Your task to perform on an android device: Do I have any events this weekend? Image 0: 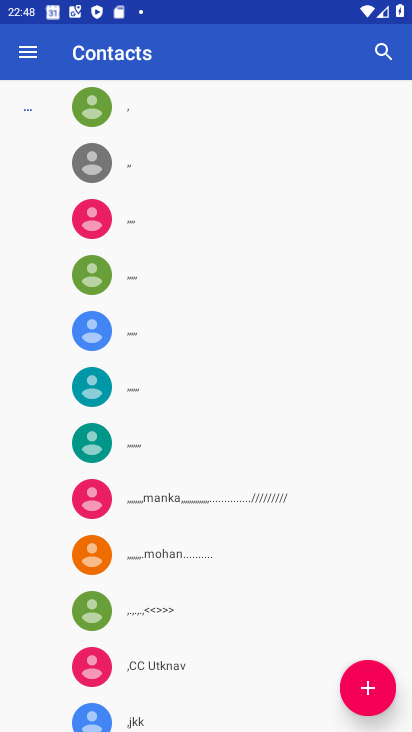
Step 0: press home button
Your task to perform on an android device: Do I have any events this weekend? Image 1: 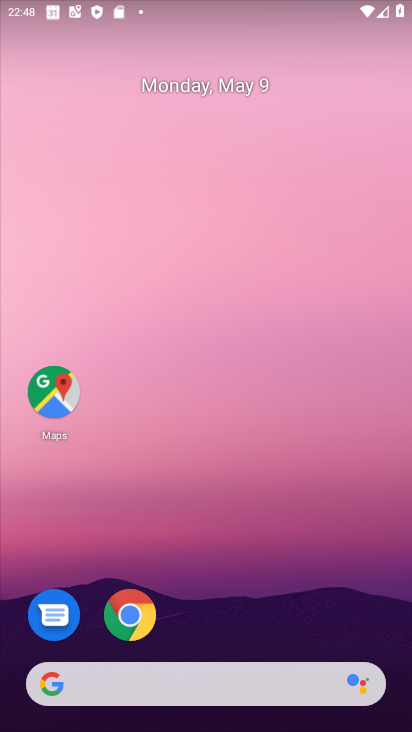
Step 1: drag from (157, 621) to (180, 179)
Your task to perform on an android device: Do I have any events this weekend? Image 2: 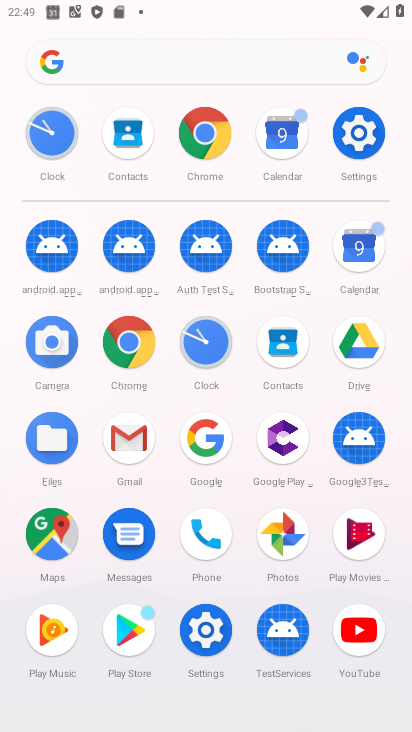
Step 2: click (369, 241)
Your task to perform on an android device: Do I have any events this weekend? Image 3: 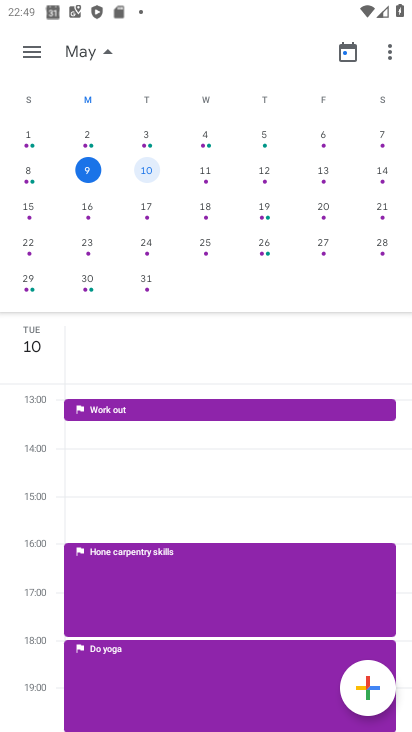
Step 3: click (388, 171)
Your task to perform on an android device: Do I have any events this weekend? Image 4: 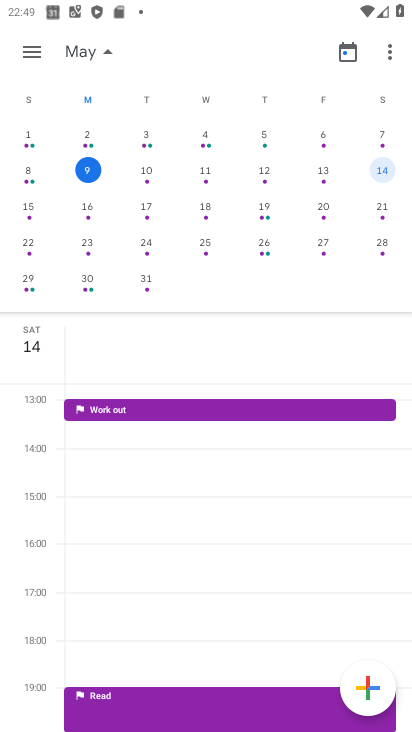
Step 4: click (31, 201)
Your task to perform on an android device: Do I have any events this weekend? Image 5: 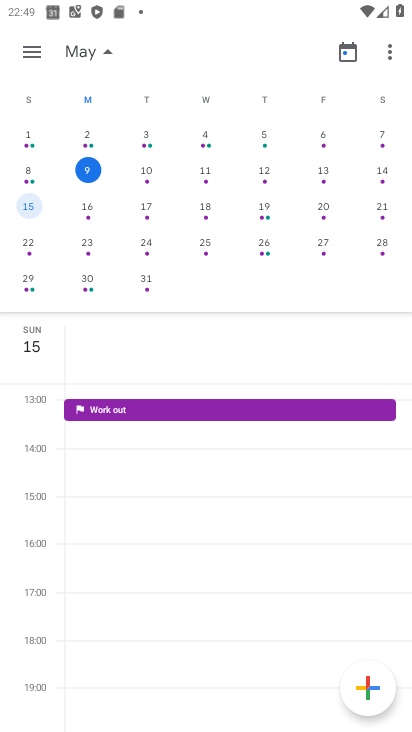
Step 5: task complete